Your task to perform on an android device: Open my contact list Image 0: 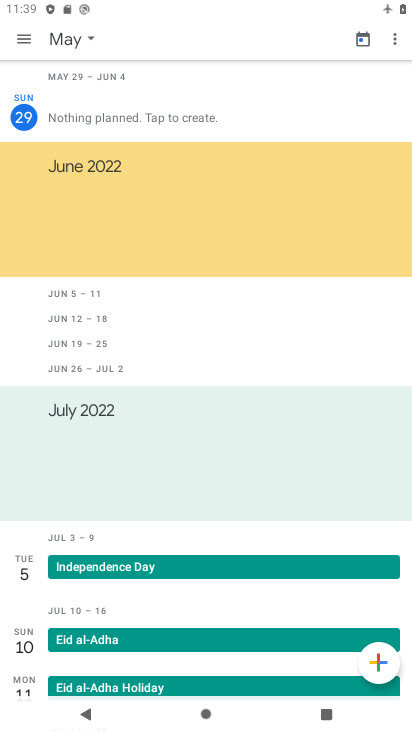
Step 0: press home button
Your task to perform on an android device: Open my contact list Image 1: 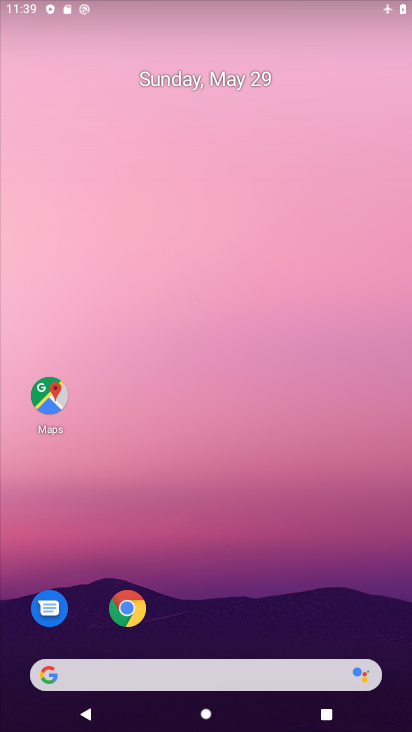
Step 1: drag from (222, 663) to (363, 34)
Your task to perform on an android device: Open my contact list Image 2: 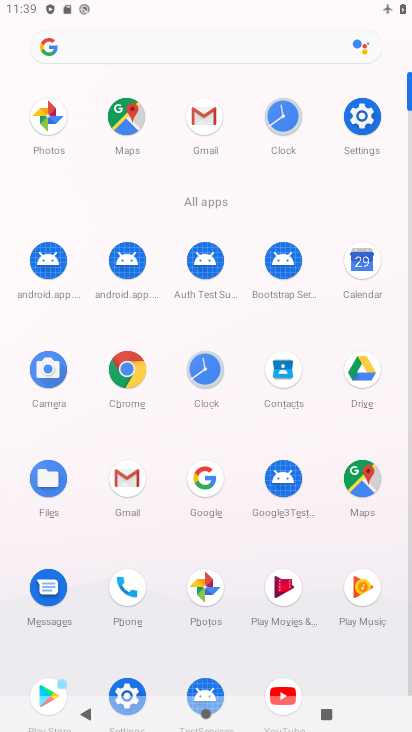
Step 2: click (86, 599)
Your task to perform on an android device: Open my contact list Image 3: 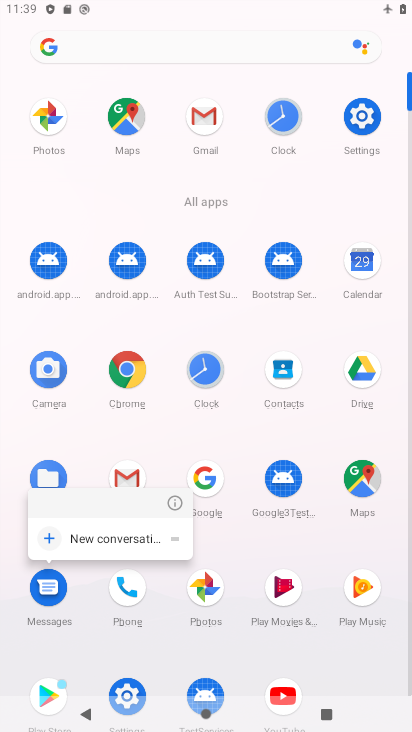
Step 3: click (114, 584)
Your task to perform on an android device: Open my contact list Image 4: 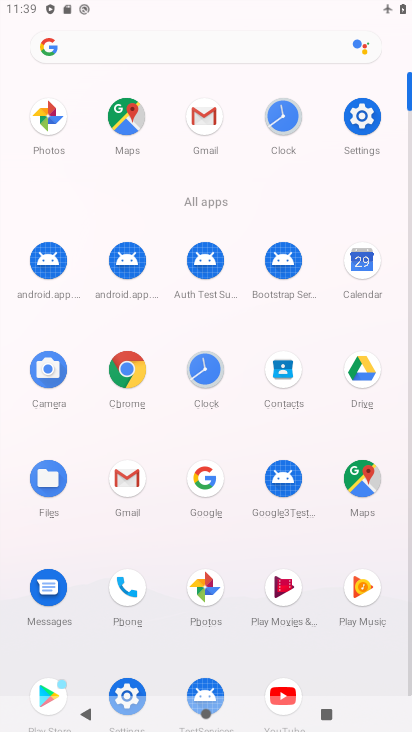
Step 4: click (118, 585)
Your task to perform on an android device: Open my contact list Image 5: 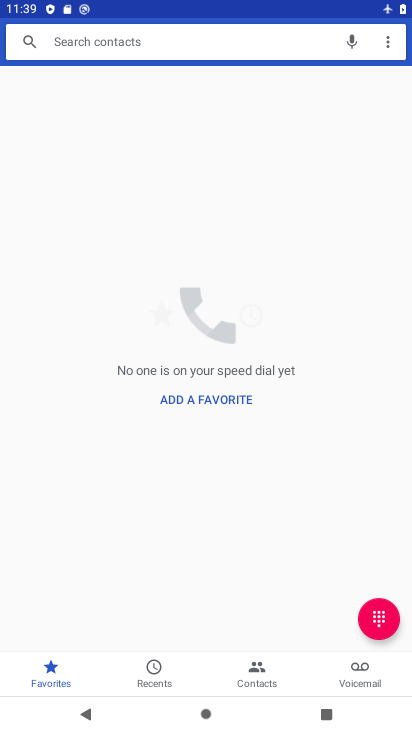
Step 5: click (287, 667)
Your task to perform on an android device: Open my contact list Image 6: 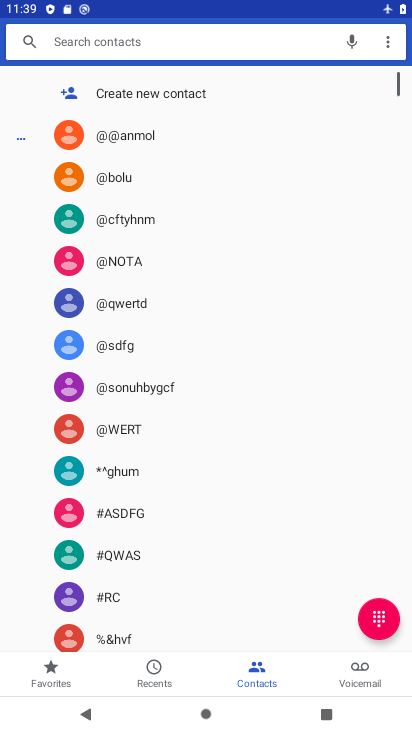
Step 6: task complete